Your task to perform on an android device: change text size in settings app Image 0: 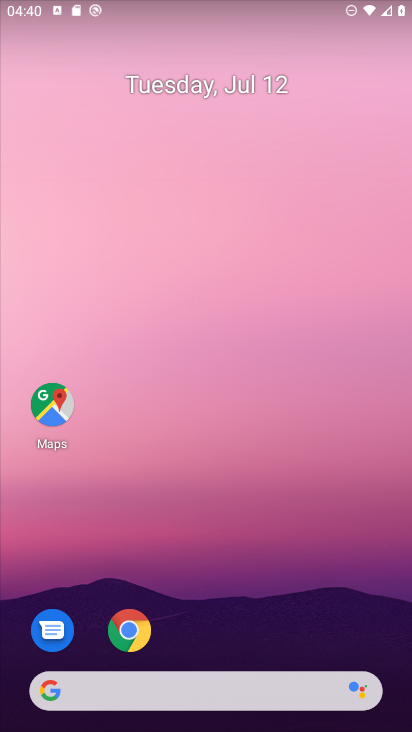
Step 0: drag from (373, 625) to (298, 16)
Your task to perform on an android device: change text size in settings app Image 1: 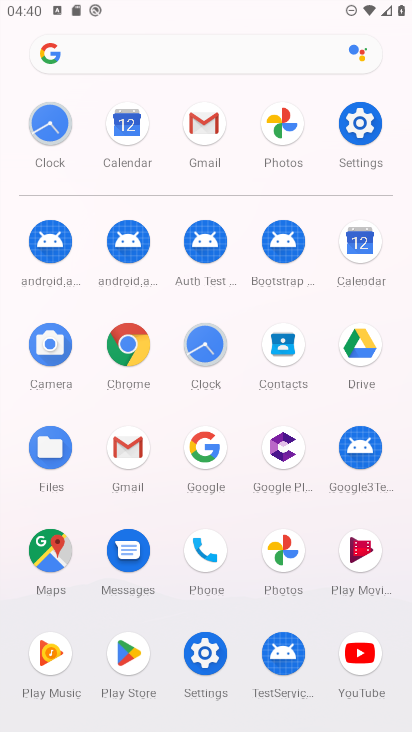
Step 1: click (205, 654)
Your task to perform on an android device: change text size in settings app Image 2: 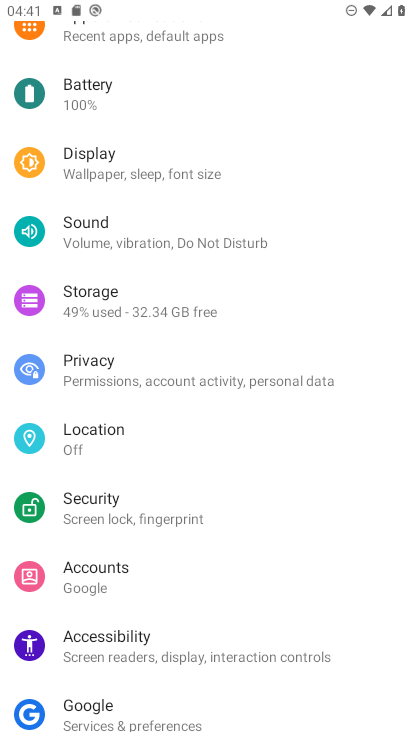
Step 2: click (93, 155)
Your task to perform on an android device: change text size in settings app Image 3: 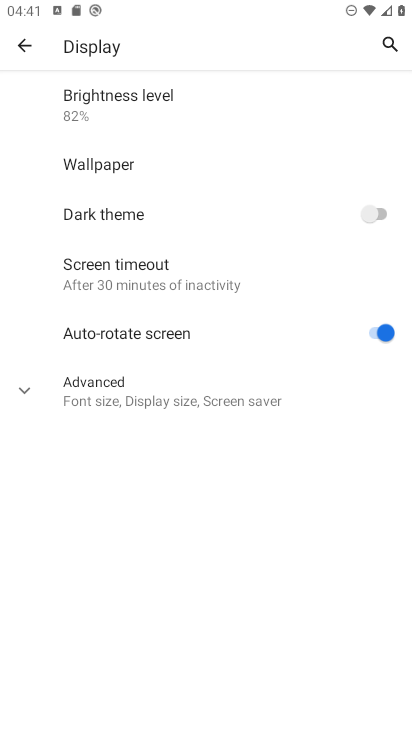
Step 3: click (25, 390)
Your task to perform on an android device: change text size in settings app Image 4: 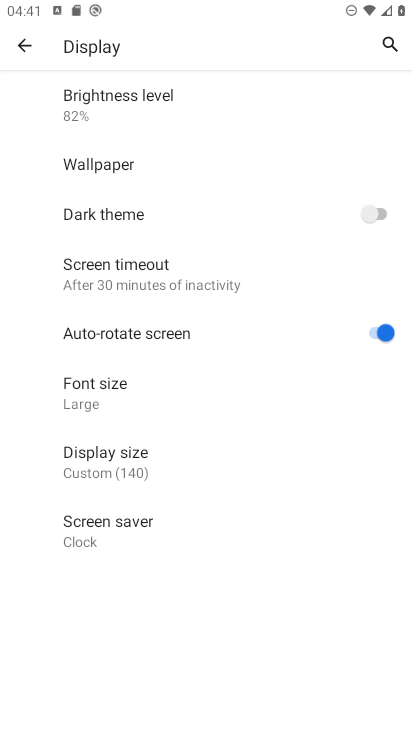
Step 4: click (83, 394)
Your task to perform on an android device: change text size in settings app Image 5: 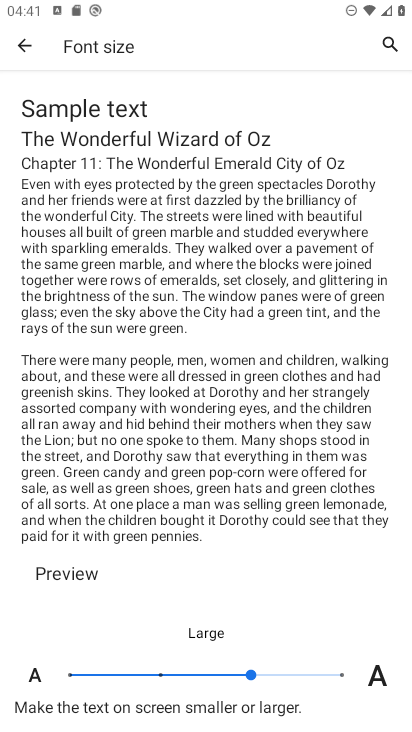
Step 5: click (338, 673)
Your task to perform on an android device: change text size in settings app Image 6: 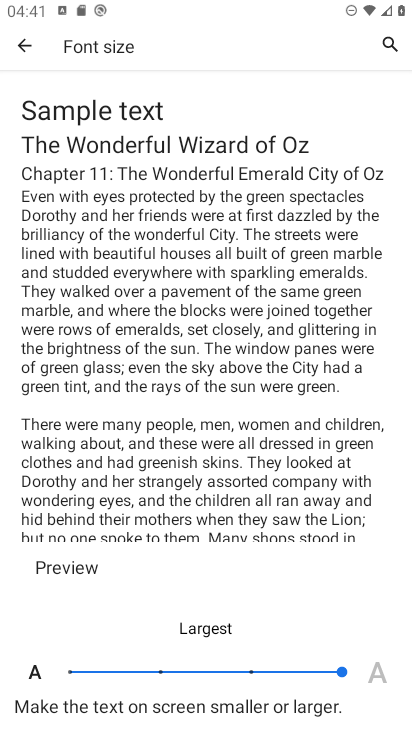
Step 6: task complete